Your task to perform on an android device: open wifi settings Image 0: 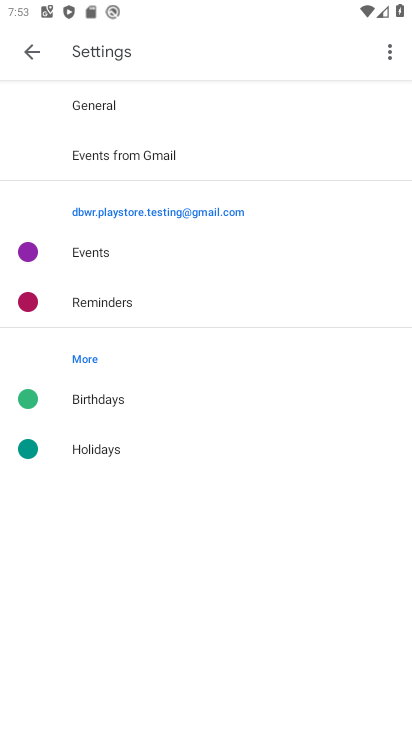
Step 0: press home button
Your task to perform on an android device: open wifi settings Image 1: 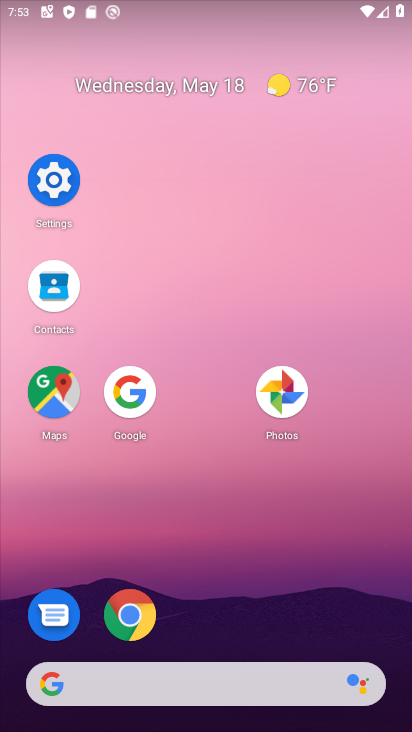
Step 1: click (65, 180)
Your task to perform on an android device: open wifi settings Image 2: 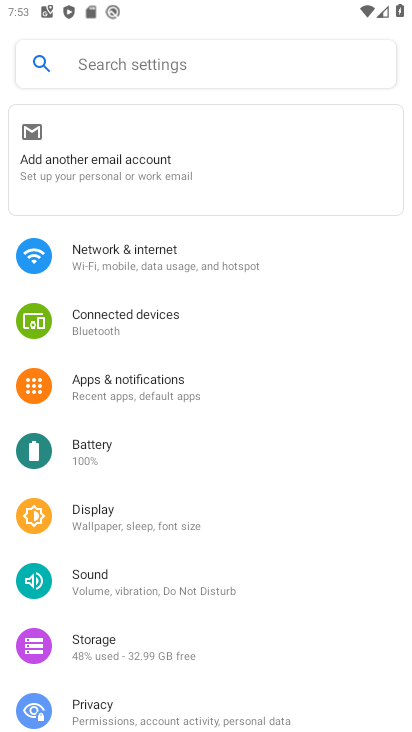
Step 2: click (223, 275)
Your task to perform on an android device: open wifi settings Image 3: 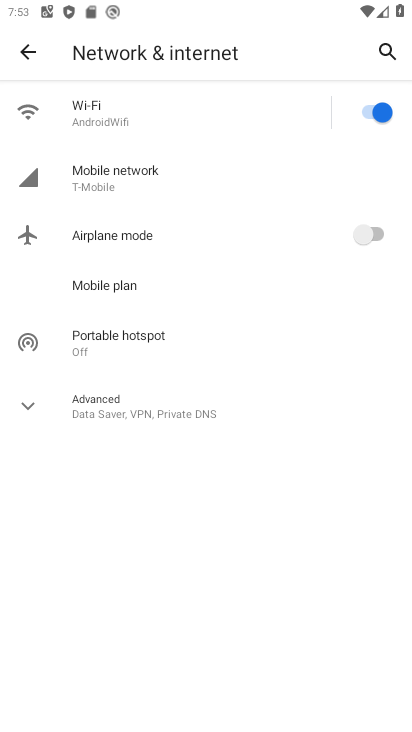
Step 3: click (120, 106)
Your task to perform on an android device: open wifi settings Image 4: 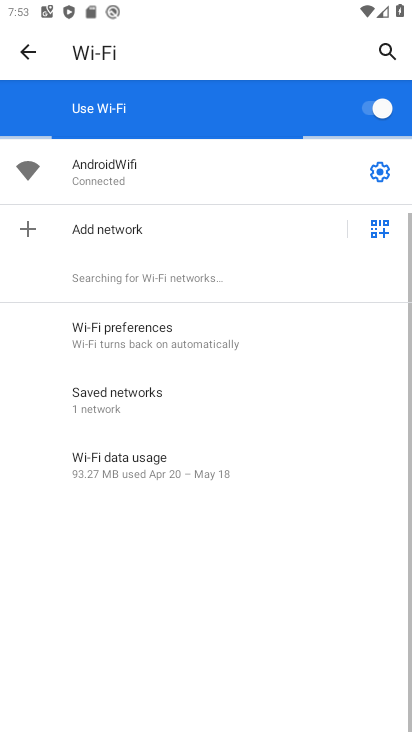
Step 4: click (381, 167)
Your task to perform on an android device: open wifi settings Image 5: 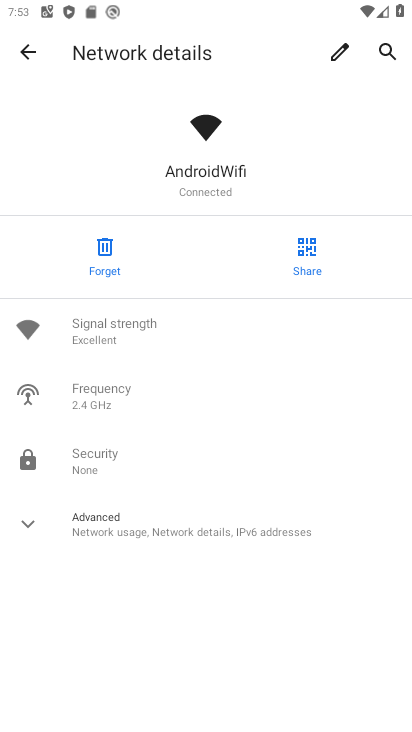
Step 5: task complete